Your task to perform on an android device: install app "YouTube Kids" Image 0: 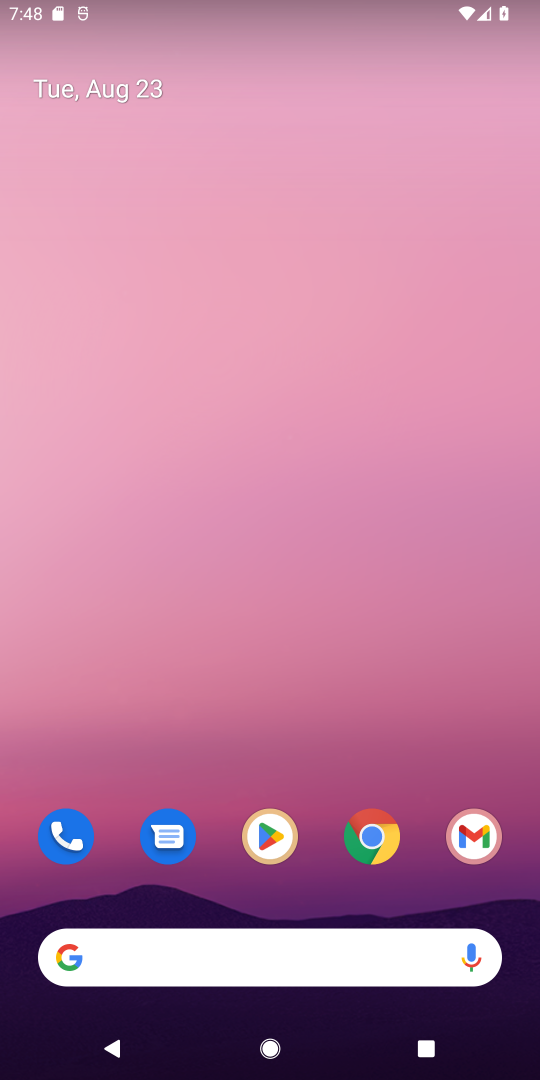
Step 0: click (264, 839)
Your task to perform on an android device: install app "YouTube Kids" Image 1: 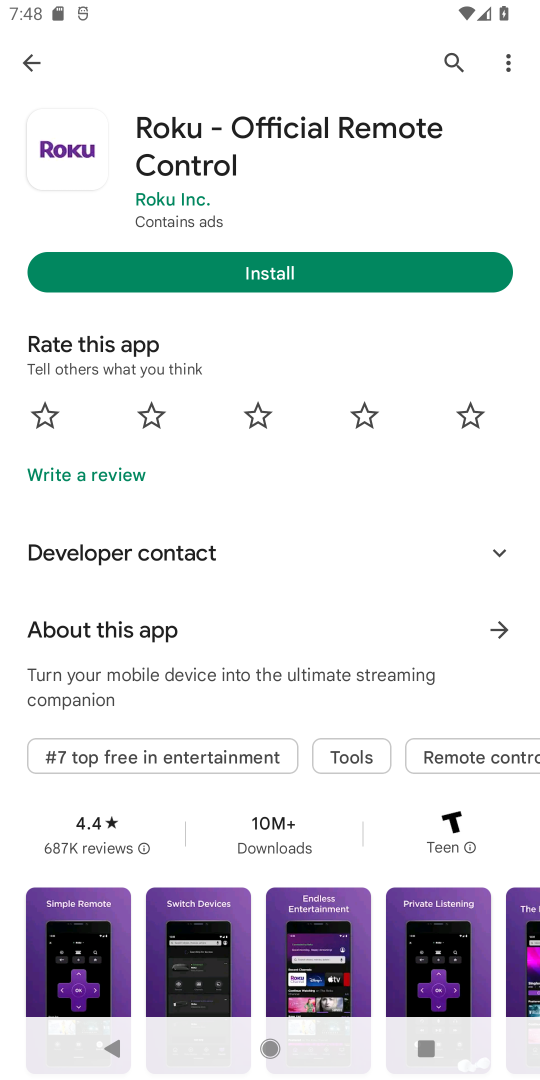
Step 1: click (449, 67)
Your task to perform on an android device: install app "YouTube Kids" Image 2: 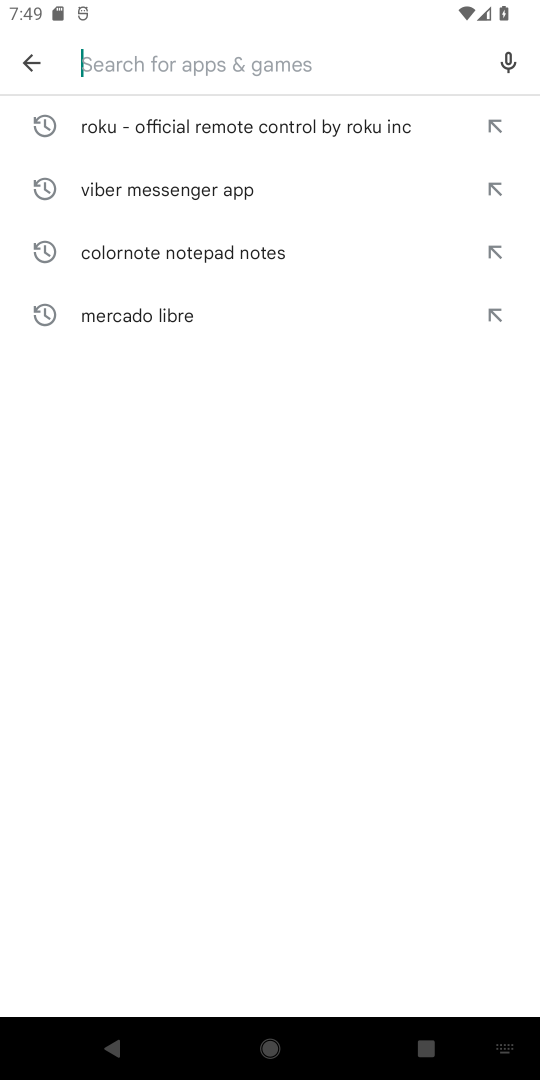
Step 2: type "YouTube Kids"
Your task to perform on an android device: install app "YouTube Kids" Image 3: 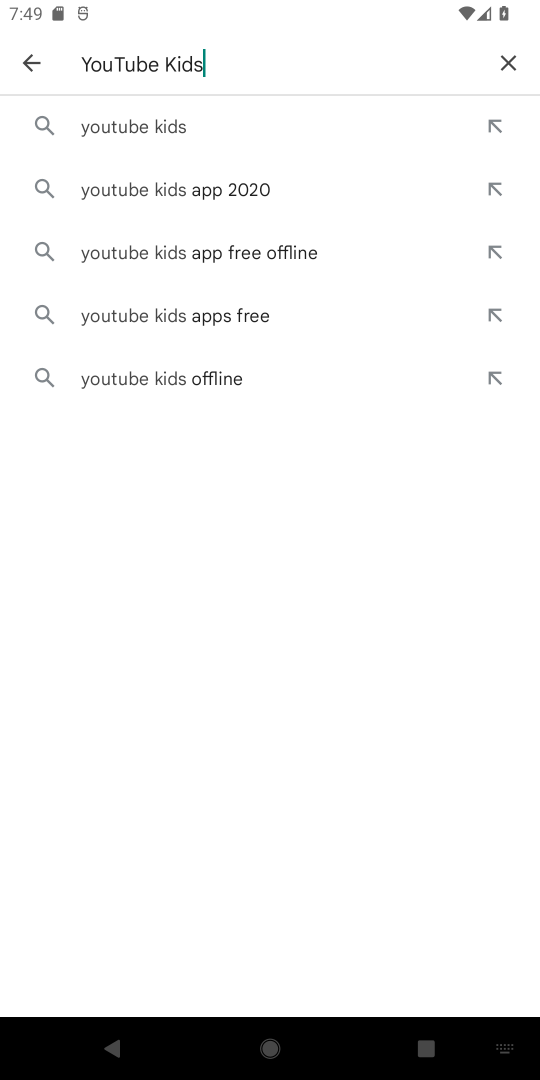
Step 3: click (138, 123)
Your task to perform on an android device: install app "YouTube Kids" Image 4: 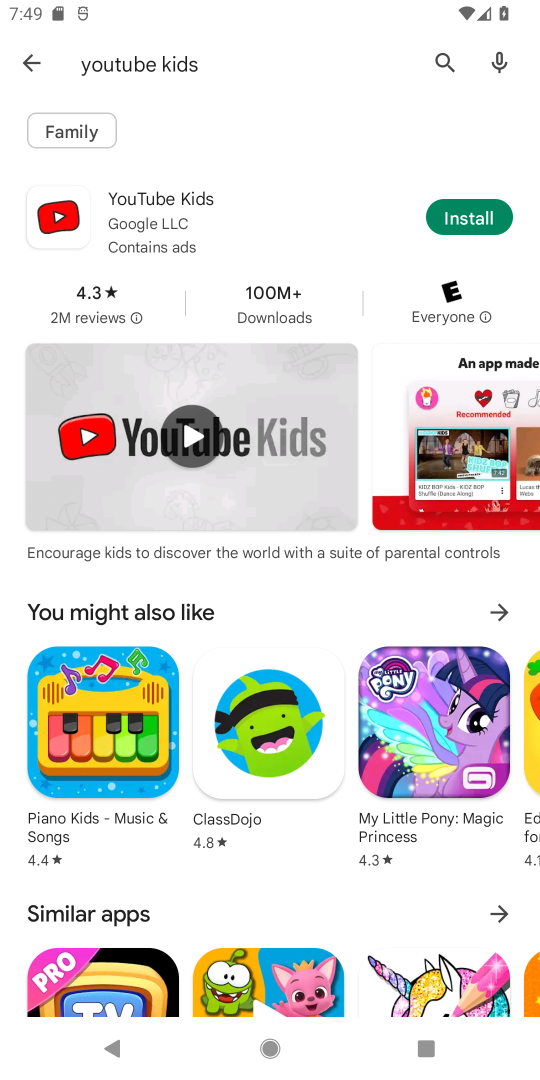
Step 4: click (481, 221)
Your task to perform on an android device: install app "YouTube Kids" Image 5: 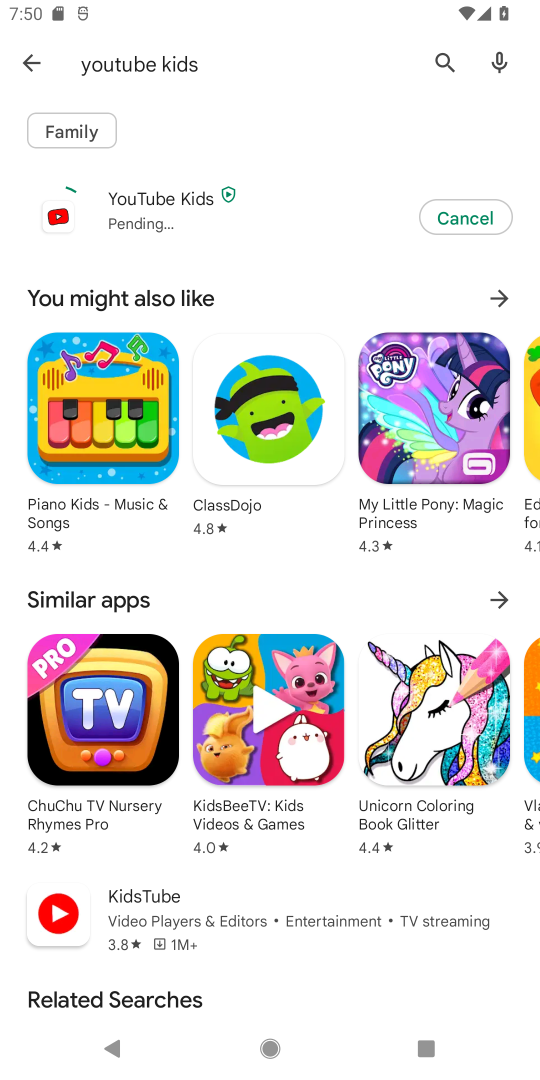
Step 5: task complete